Your task to perform on an android device: Empty the shopping cart on amazon. Search for panasonic triple a on amazon, select the first entry, add it to the cart, then select checkout. Image 0: 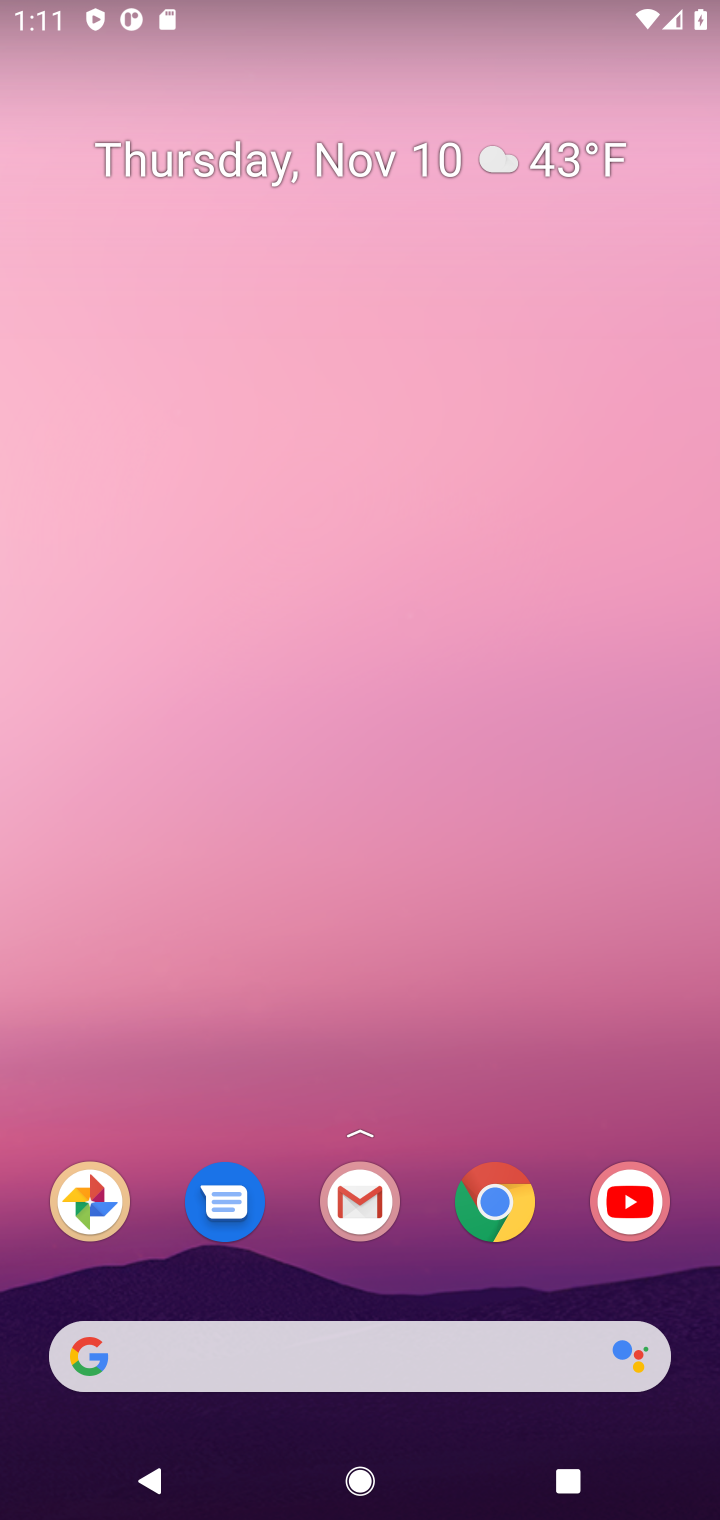
Step 0: click (502, 1208)
Your task to perform on an android device: Empty the shopping cart on amazon. Search for panasonic triple a on amazon, select the first entry, add it to the cart, then select checkout. Image 1: 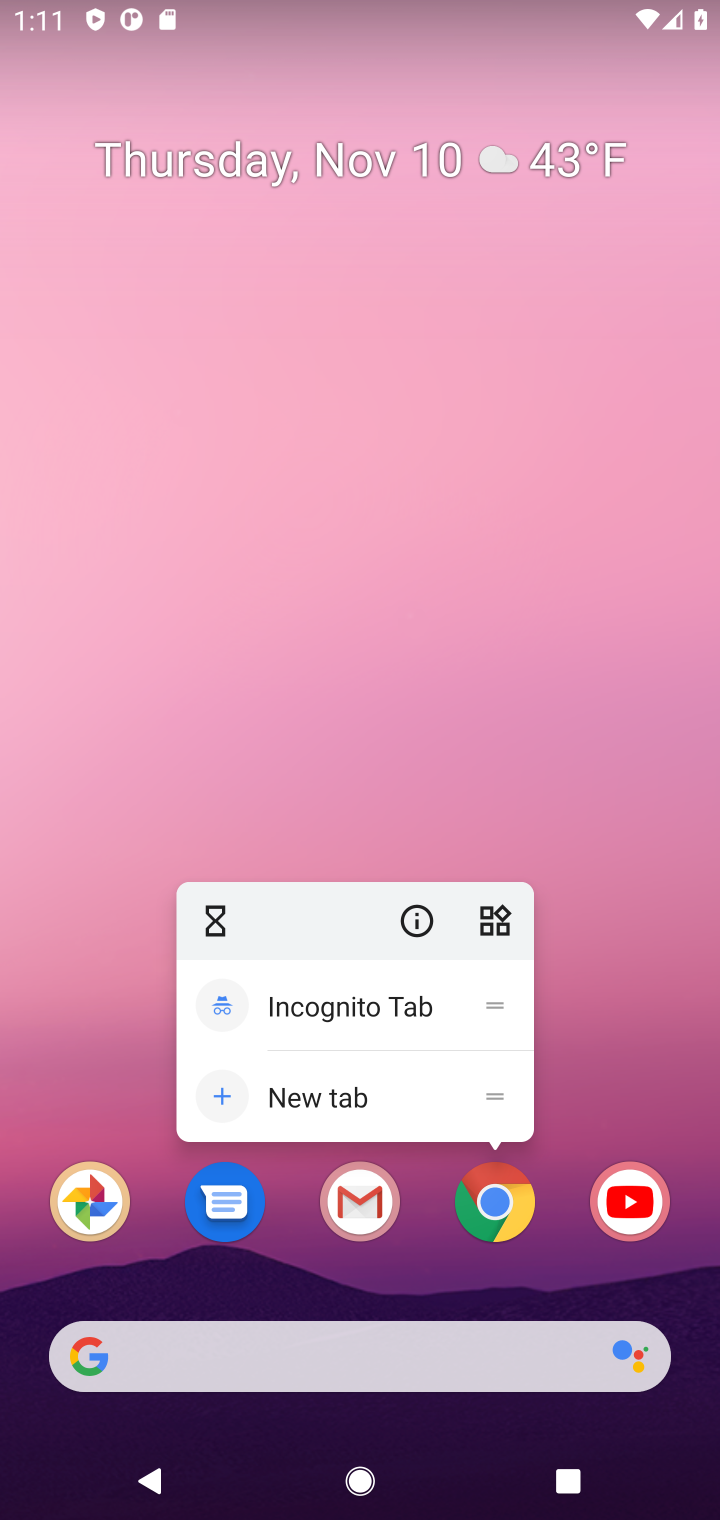
Step 1: click (502, 1208)
Your task to perform on an android device: Empty the shopping cart on amazon. Search for panasonic triple a on amazon, select the first entry, add it to the cart, then select checkout. Image 2: 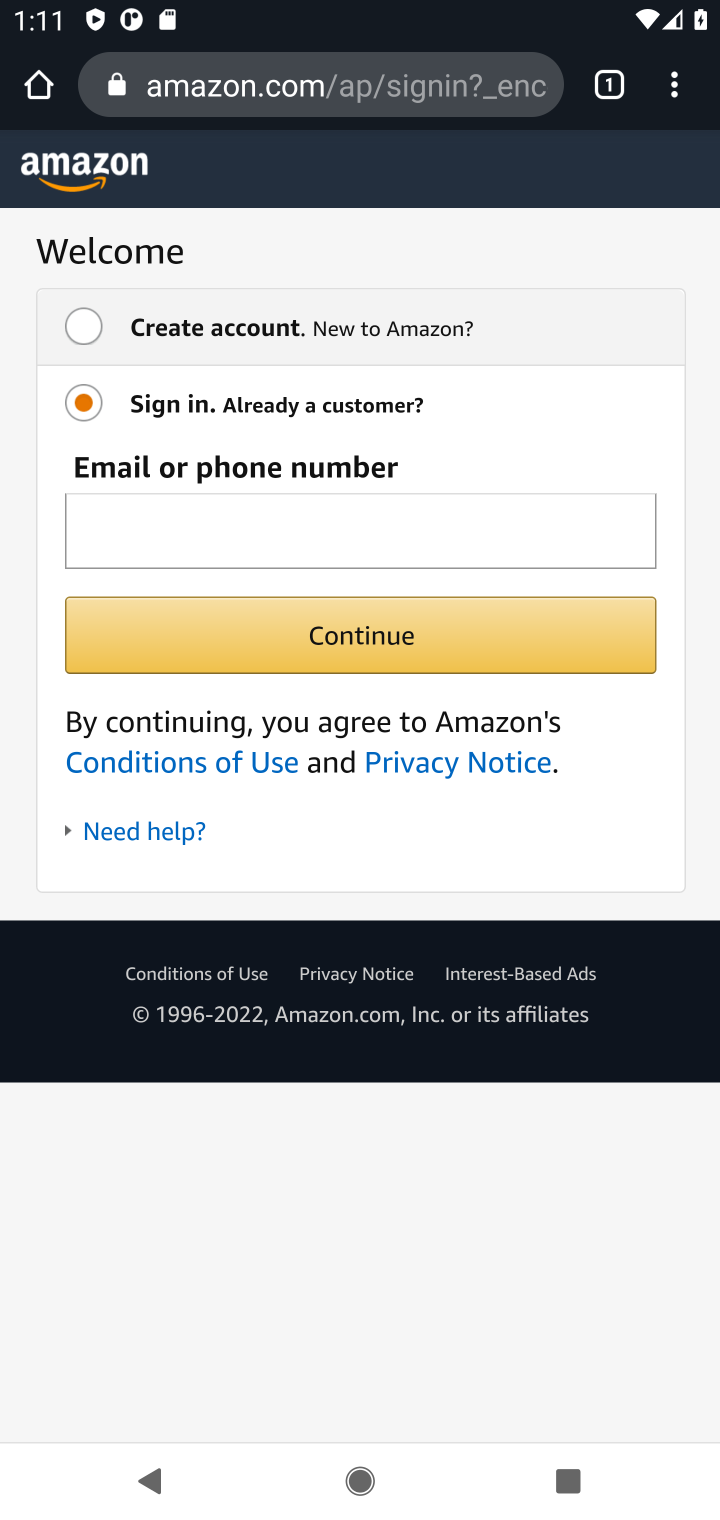
Step 2: click (385, 91)
Your task to perform on an android device: Empty the shopping cart on amazon. Search for panasonic triple a on amazon, select the first entry, add it to the cart, then select checkout. Image 3: 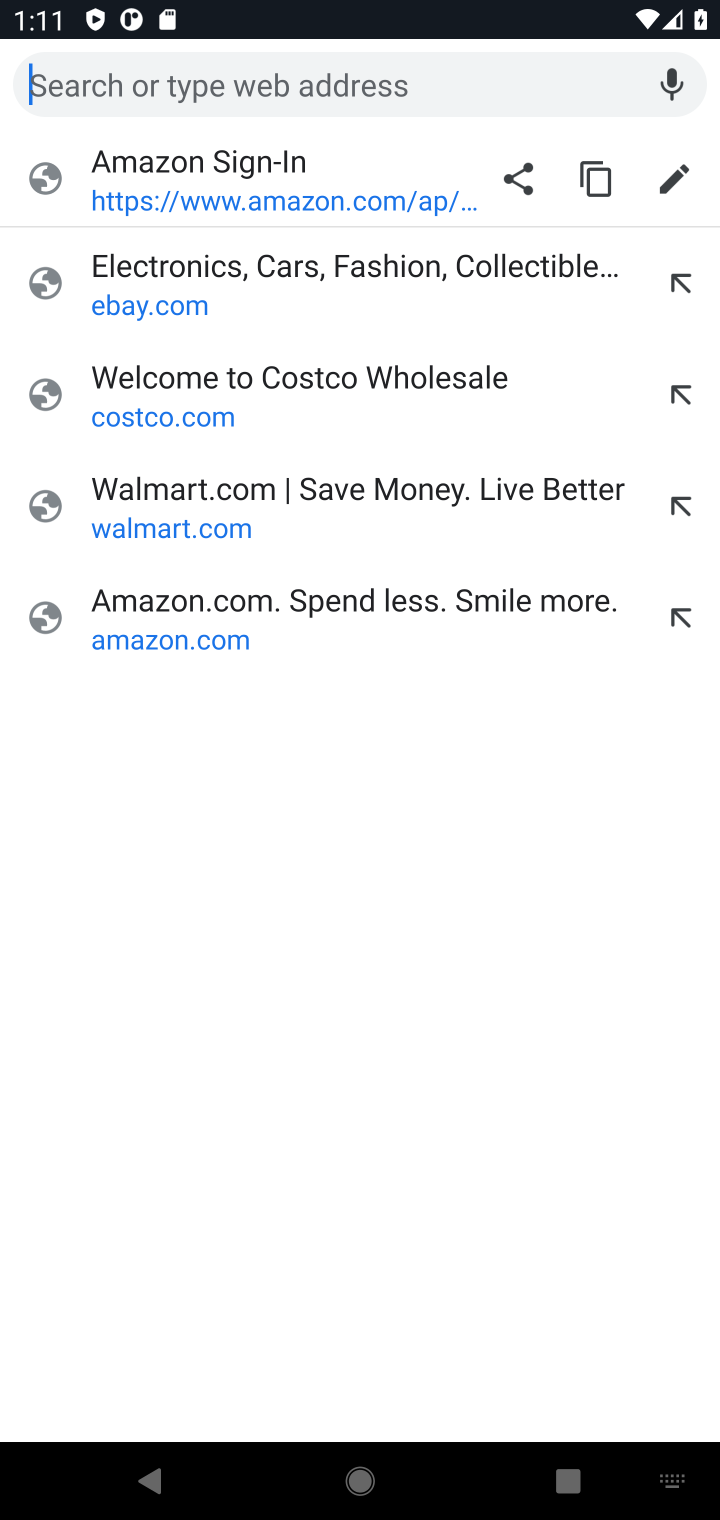
Step 3: click (281, 202)
Your task to perform on an android device: Empty the shopping cart on amazon. Search for panasonic triple a on amazon, select the first entry, add it to the cart, then select checkout. Image 4: 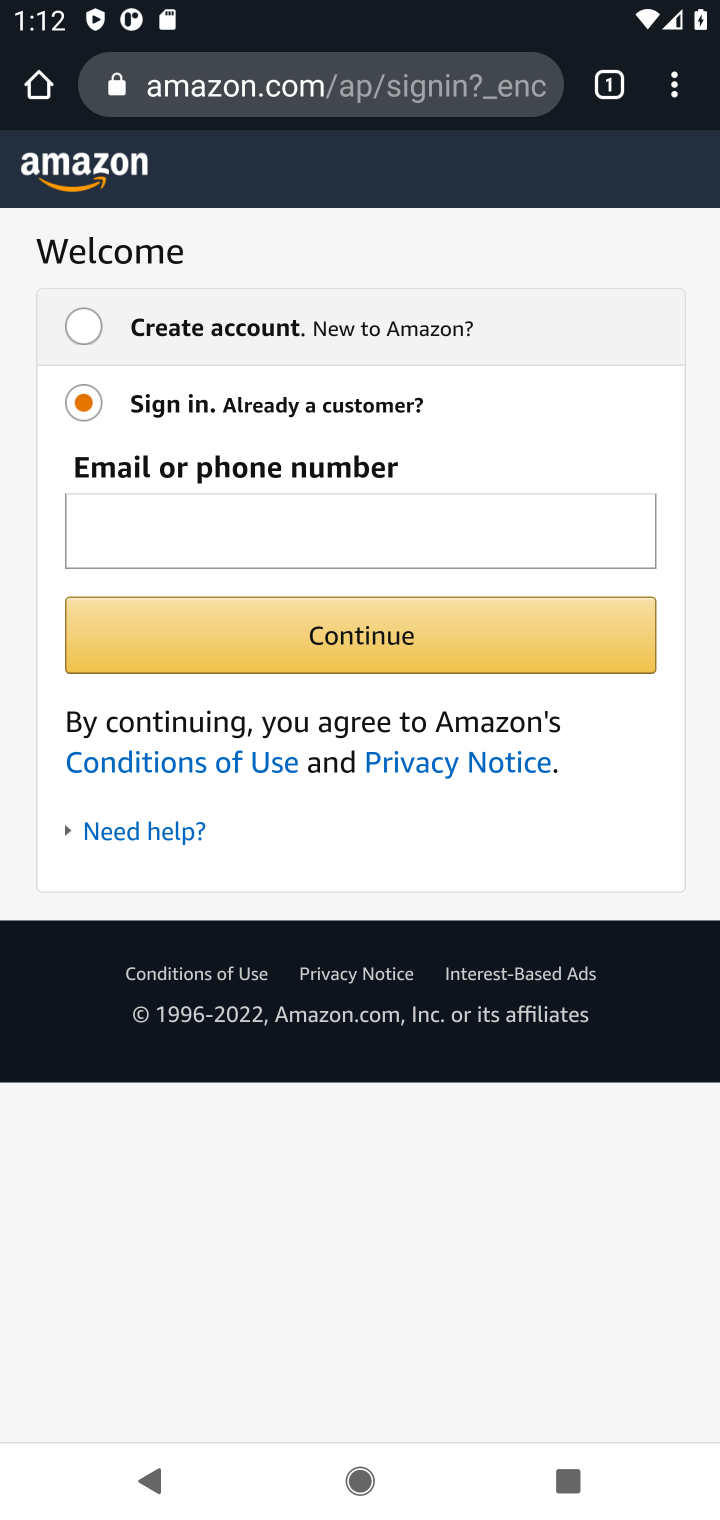
Step 4: press back button
Your task to perform on an android device: Empty the shopping cart on amazon. Search for panasonic triple a on amazon, select the first entry, add it to the cart, then select checkout. Image 5: 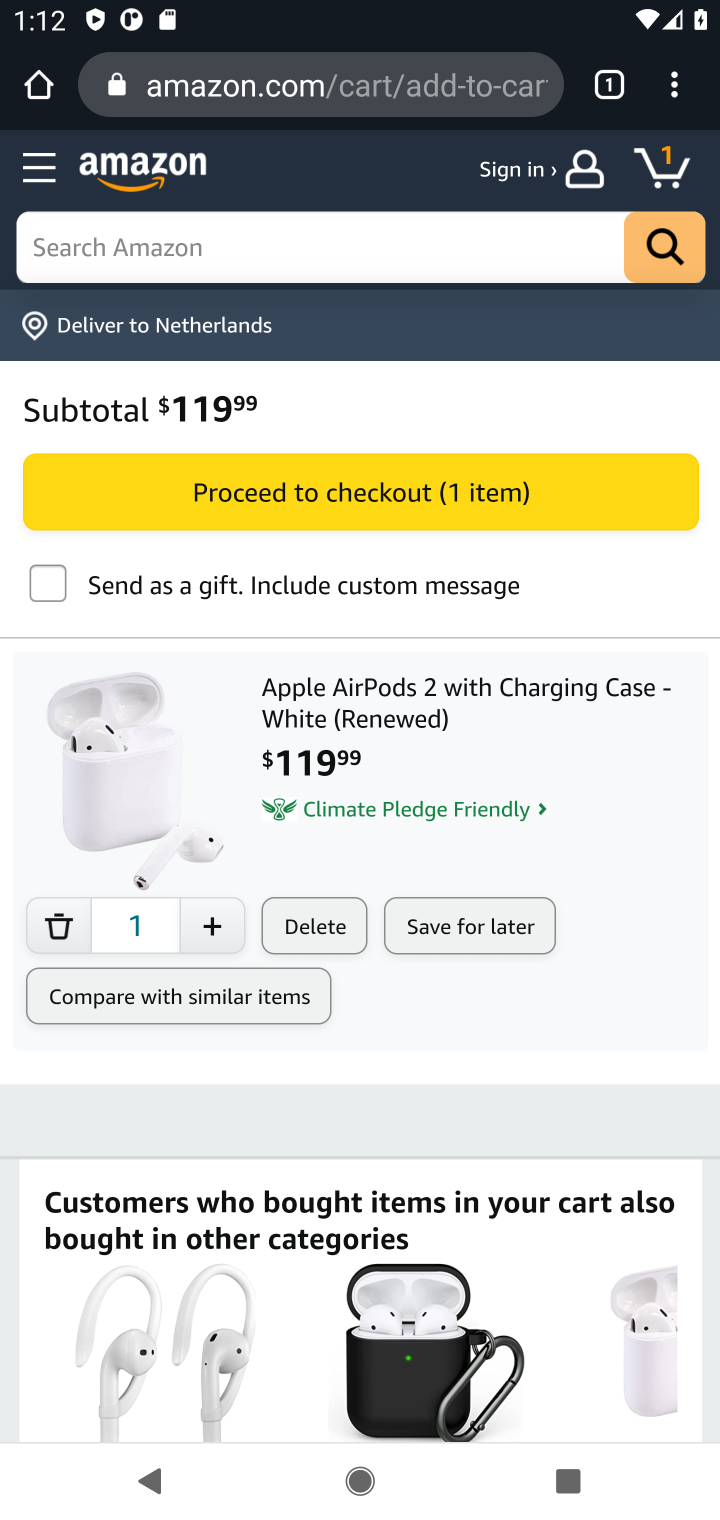
Step 5: click (305, 916)
Your task to perform on an android device: Empty the shopping cart on amazon. Search for panasonic triple a on amazon, select the first entry, add it to the cart, then select checkout. Image 6: 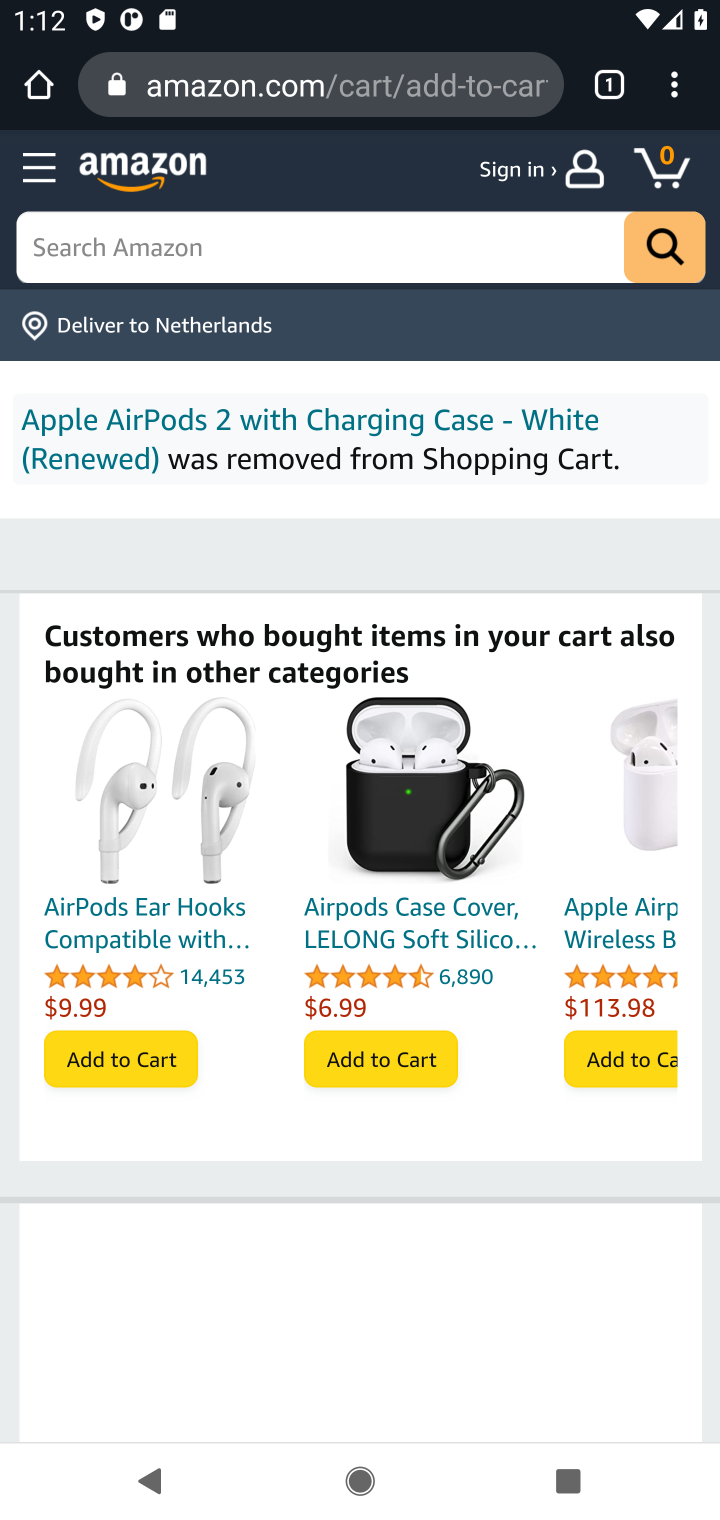
Step 6: click (425, 237)
Your task to perform on an android device: Empty the shopping cart on amazon. Search for panasonic triple a on amazon, select the first entry, add it to the cart, then select checkout. Image 7: 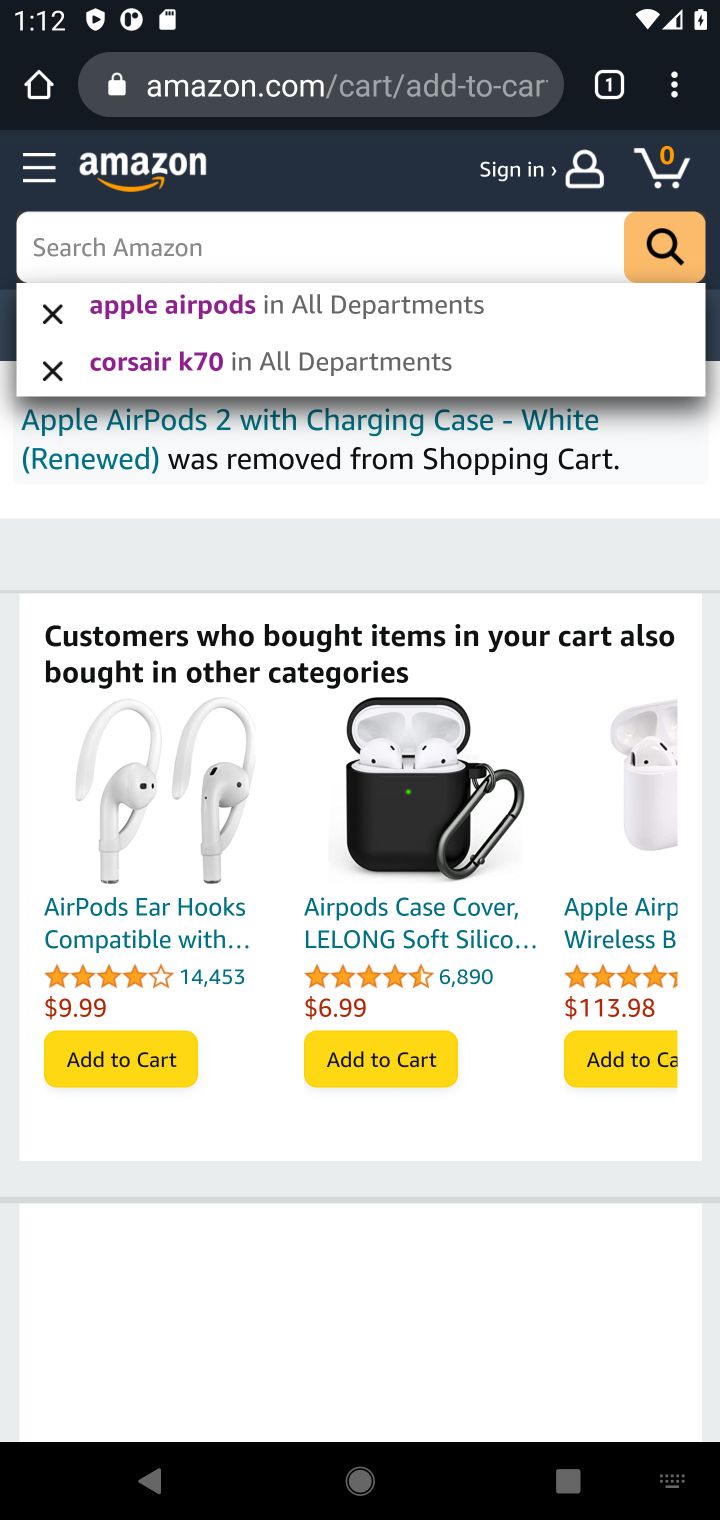
Step 7: type "panasonic triple a"
Your task to perform on an android device: Empty the shopping cart on amazon. Search for panasonic triple a on amazon, select the first entry, add it to the cart, then select checkout. Image 8: 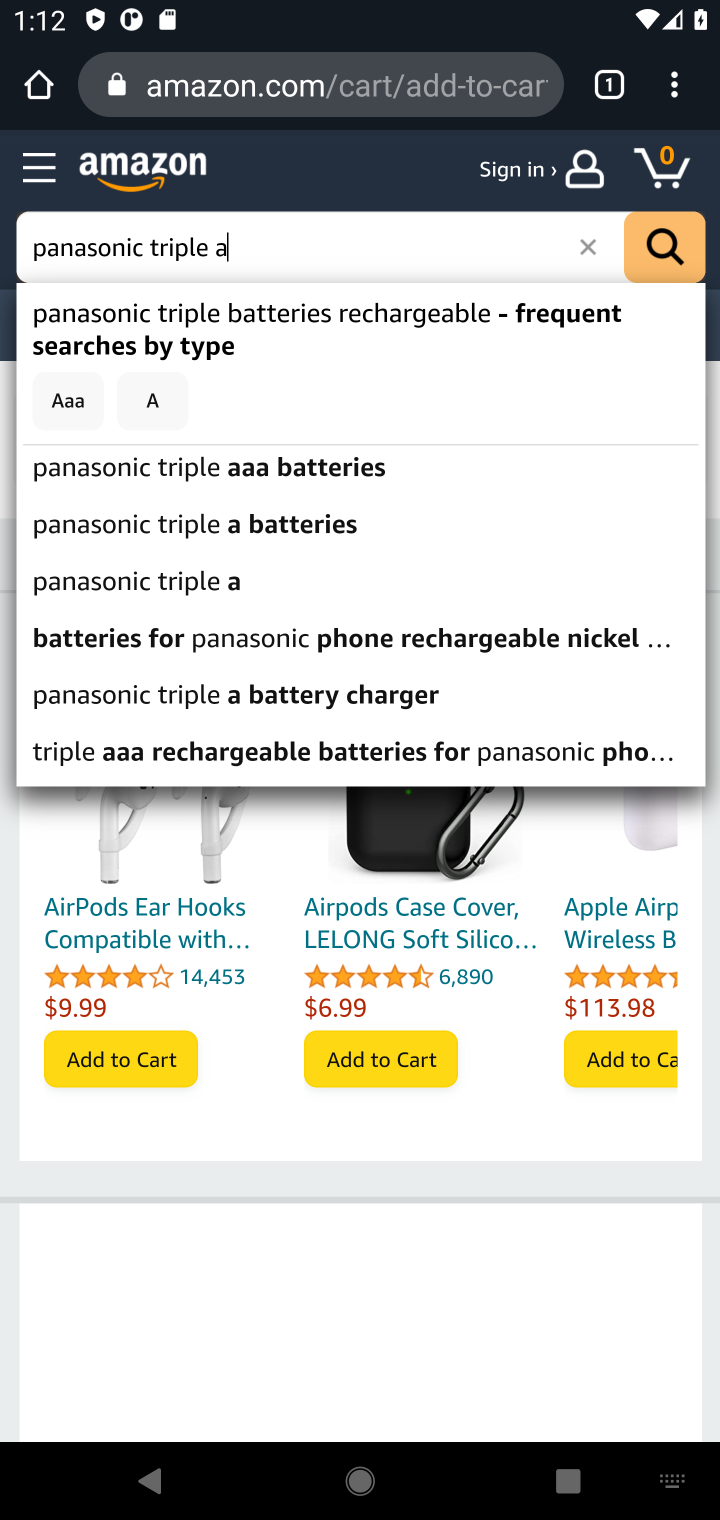
Step 8: press enter
Your task to perform on an android device: Empty the shopping cart on amazon. Search for panasonic triple a on amazon, select the first entry, add it to the cart, then select checkout. Image 9: 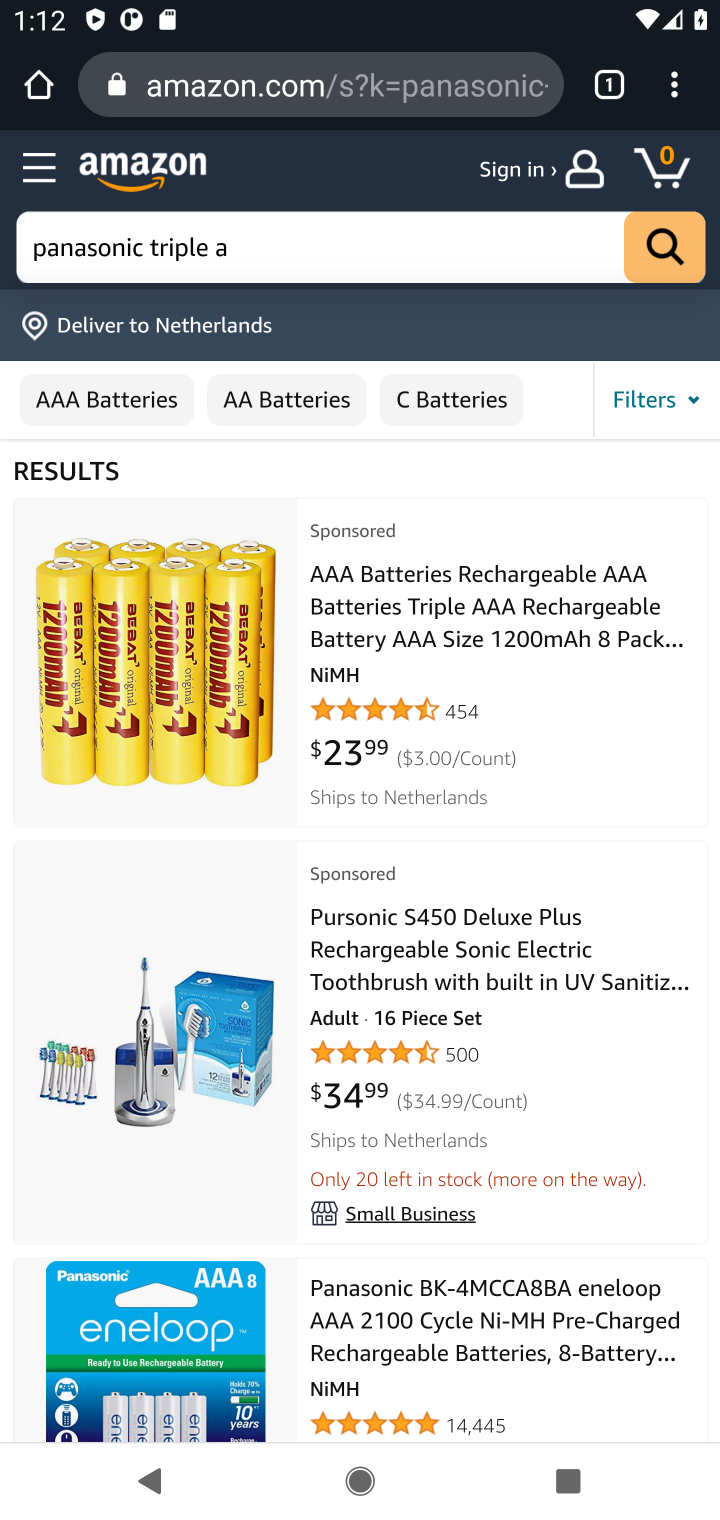
Step 9: drag from (565, 1249) to (579, 863)
Your task to perform on an android device: Empty the shopping cart on amazon. Search for panasonic triple a on amazon, select the first entry, add it to the cart, then select checkout. Image 10: 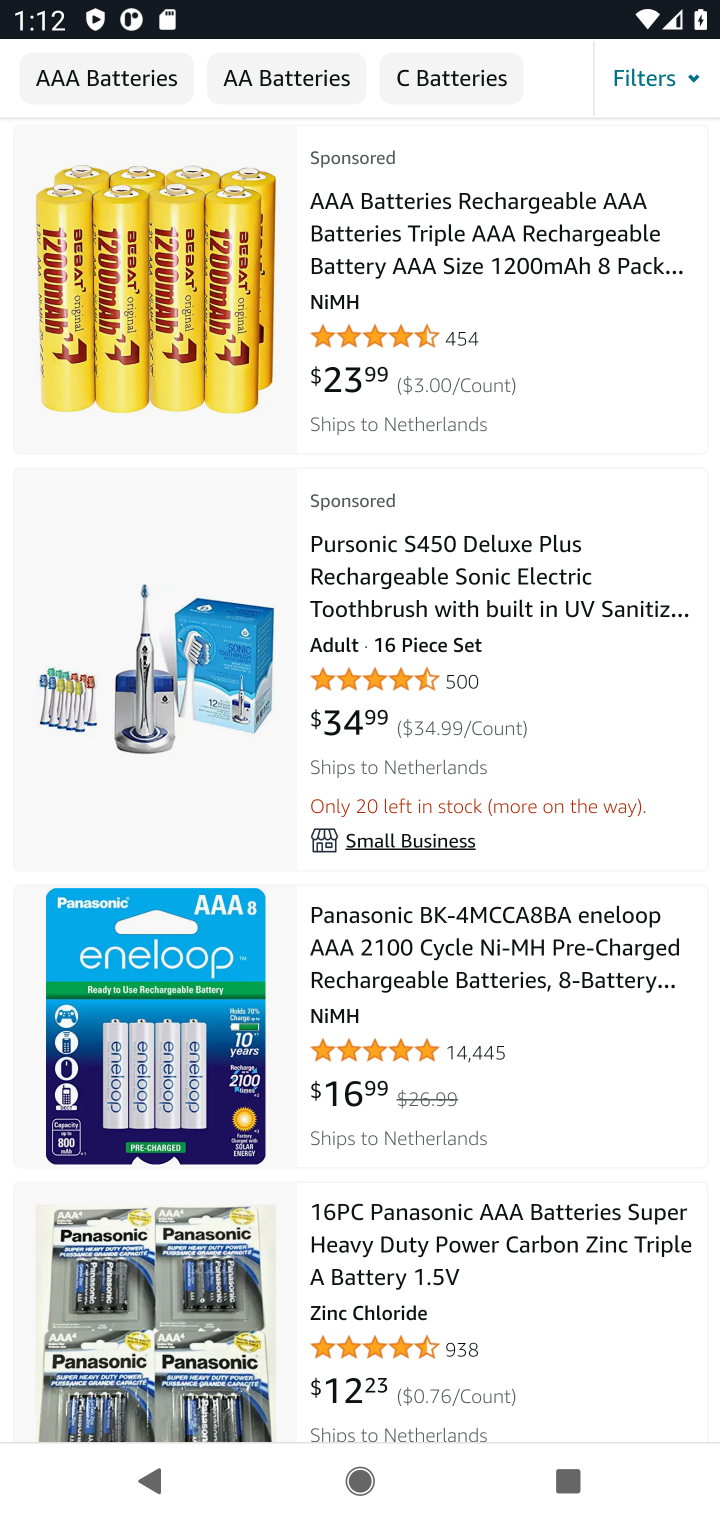
Step 10: click (136, 1284)
Your task to perform on an android device: Empty the shopping cart on amazon. Search for panasonic triple a on amazon, select the first entry, add it to the cart, then select checkout. Image 11: 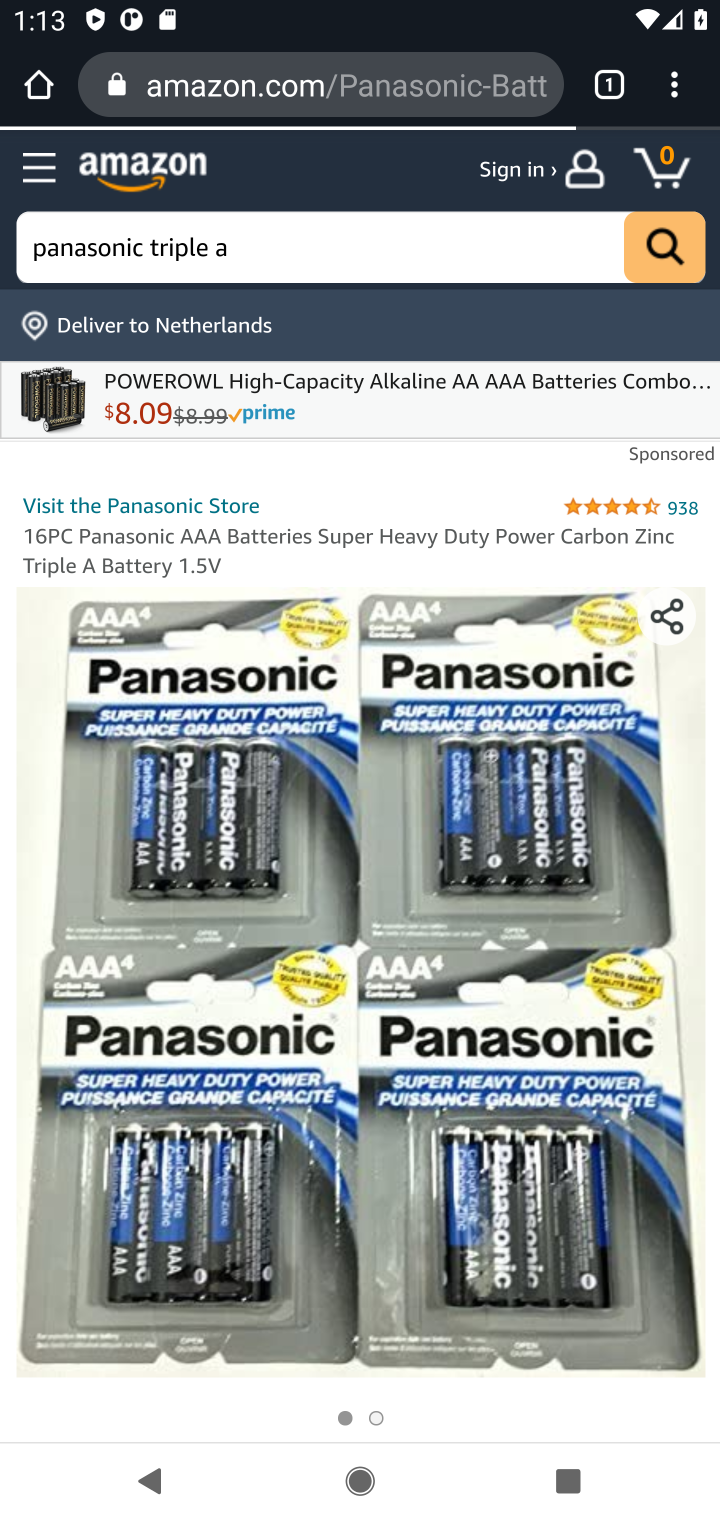
Step 11: drag from (434, 378) to (459, 314)
Your task to perform on an android device: Empty the shopping cart on amazon. Search for panasonic triple a on amazon, select the first entry, add it to the cart, then select checkout. Image 12: 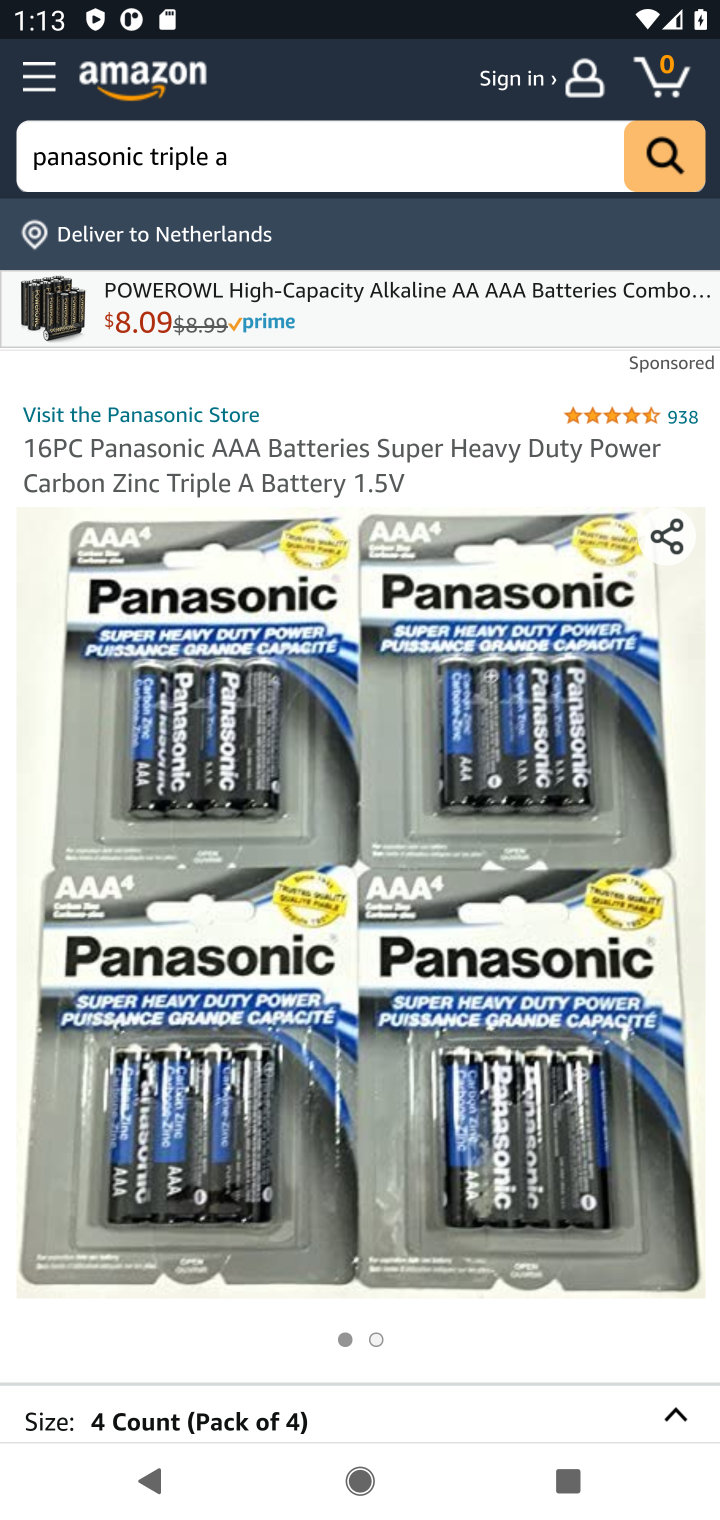
Step 12: click (560, 577)
Your task to perform on an android device: Empty the shopping cart on amazon. Search for panasonic triple a on amazon, select the first entry, add it to the cart, then select checkout. Image 13: 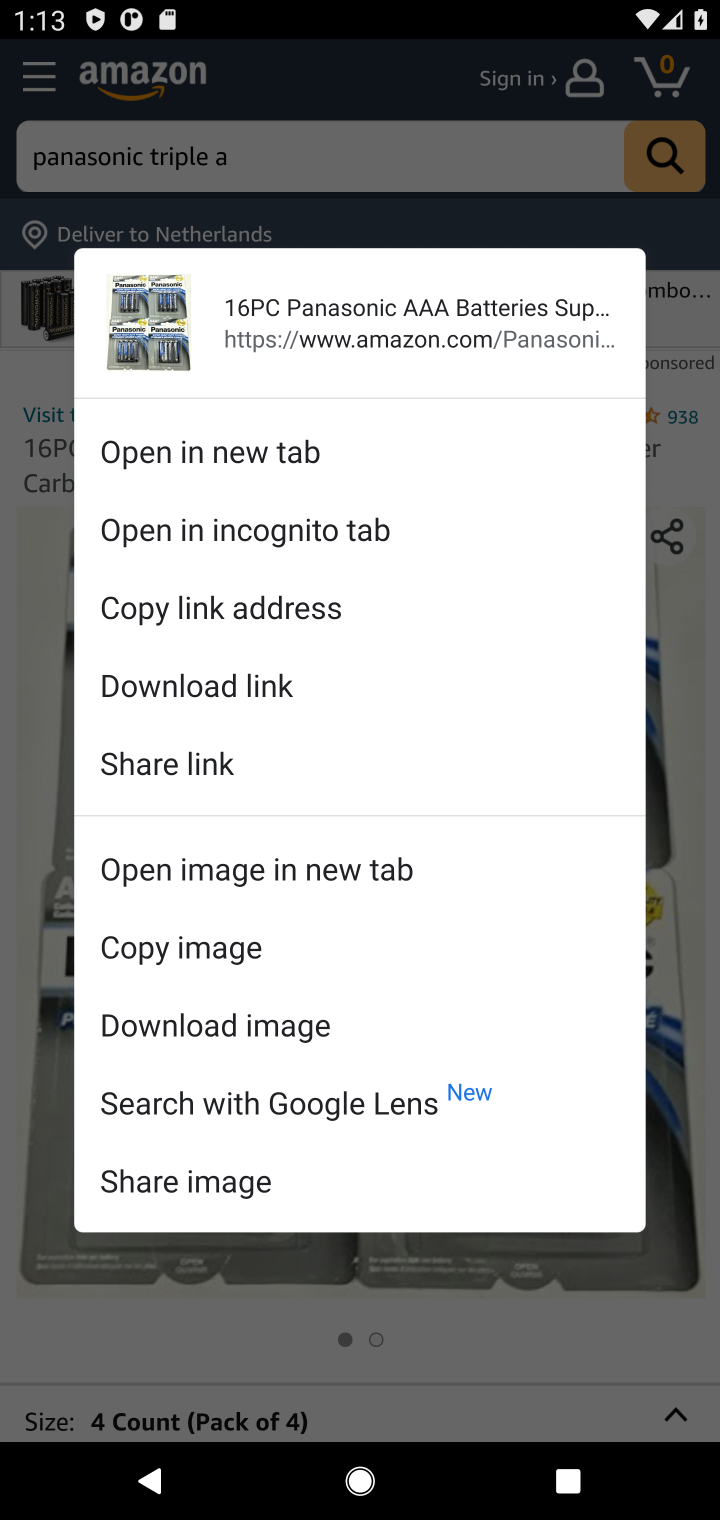
Step 13: click (527, 1281)
Your task to perform on an android device: Empty the shopping cart on amazon. Search for panasonic triple a on amazon, select the first entry, add it to the cart, then select checkout. Image 14: 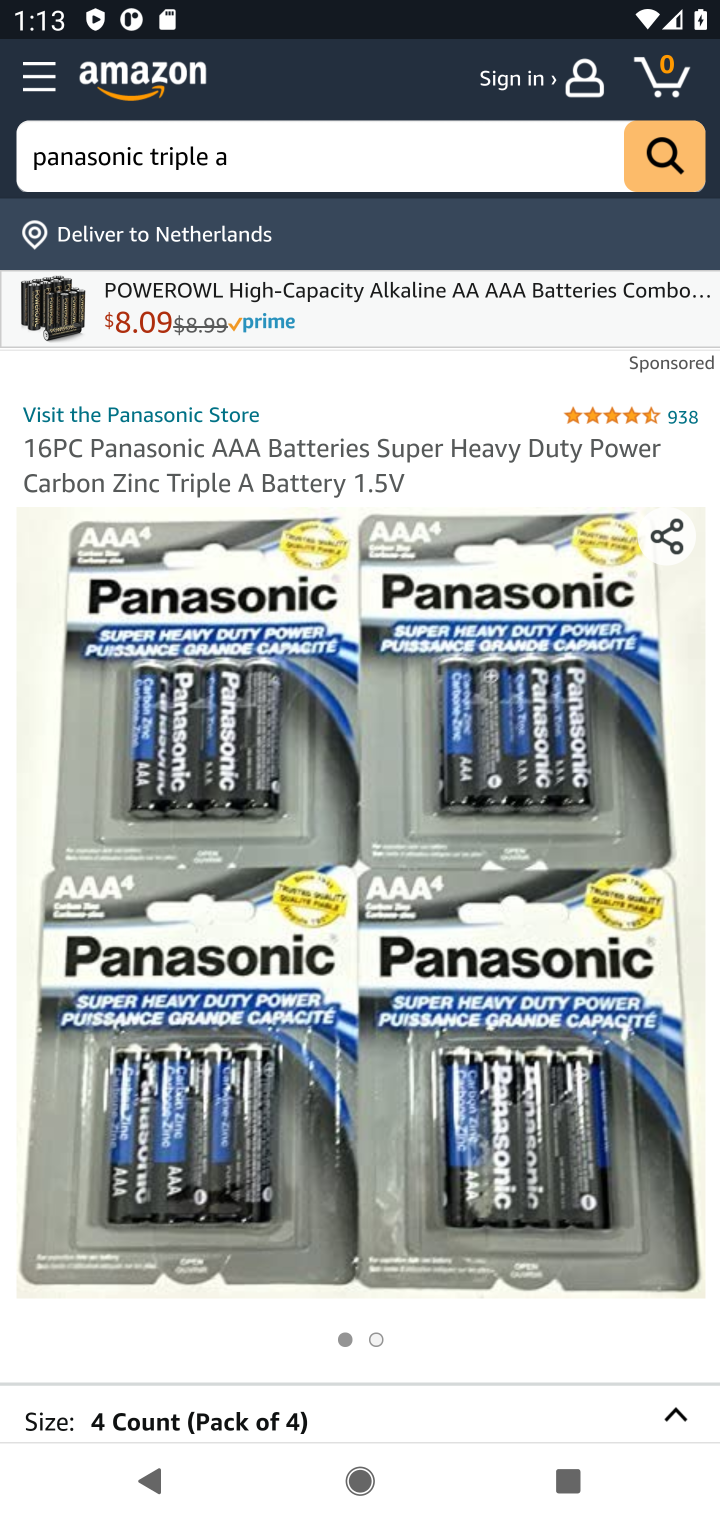
Step 14: drag from (381, 1006) to (496, 513)
Your task to perform on an android device: Empty the shopping cart on amazon. Search for panasonic triple a on amazon, select the first entry, add it to the cart, then select checkout. Image 15: 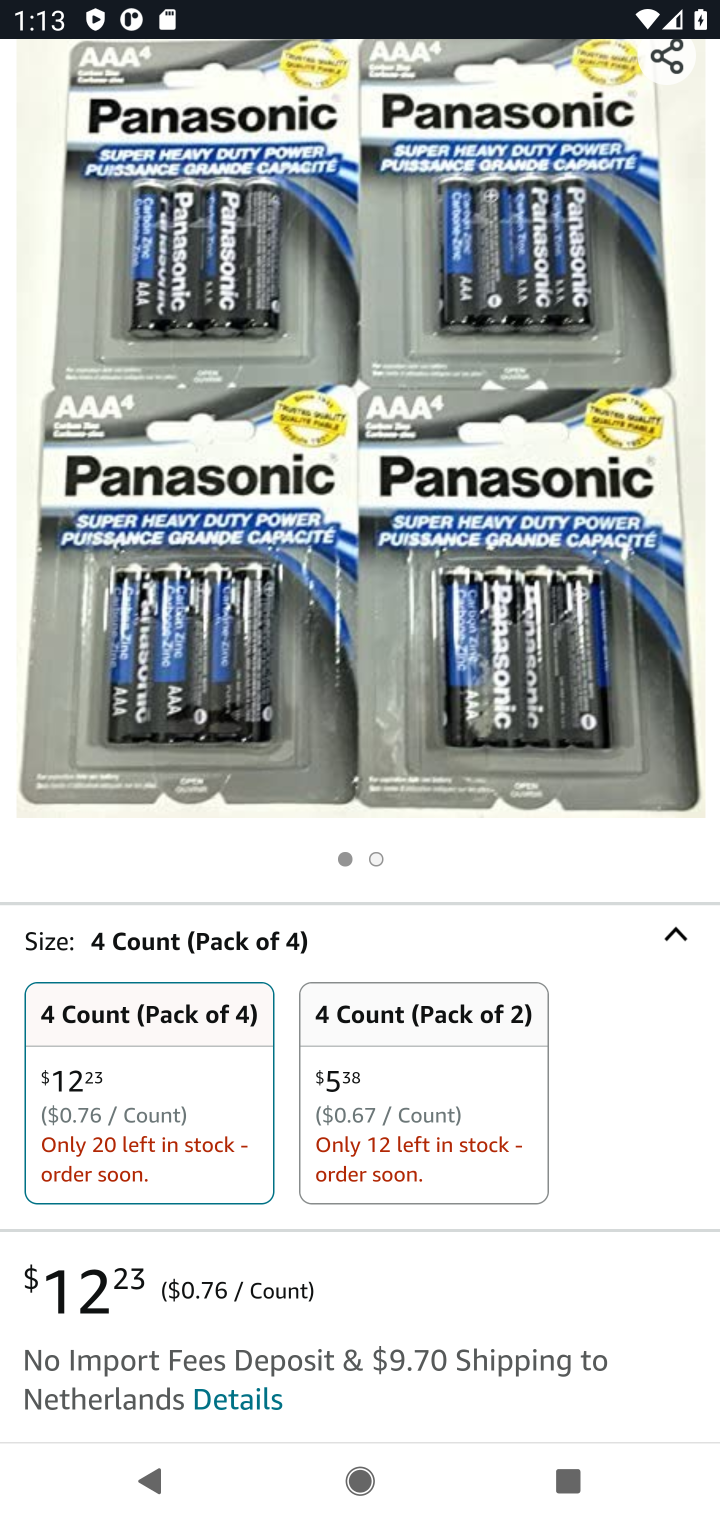
Step 15: drag from (537, 1162) to (497, 729)
Your task to perform on an android device: Empty the shopping cart on amazon. Search for panasonic triple a on amazon, select the first entry, add it to the cart, then select checkout. Image 16: 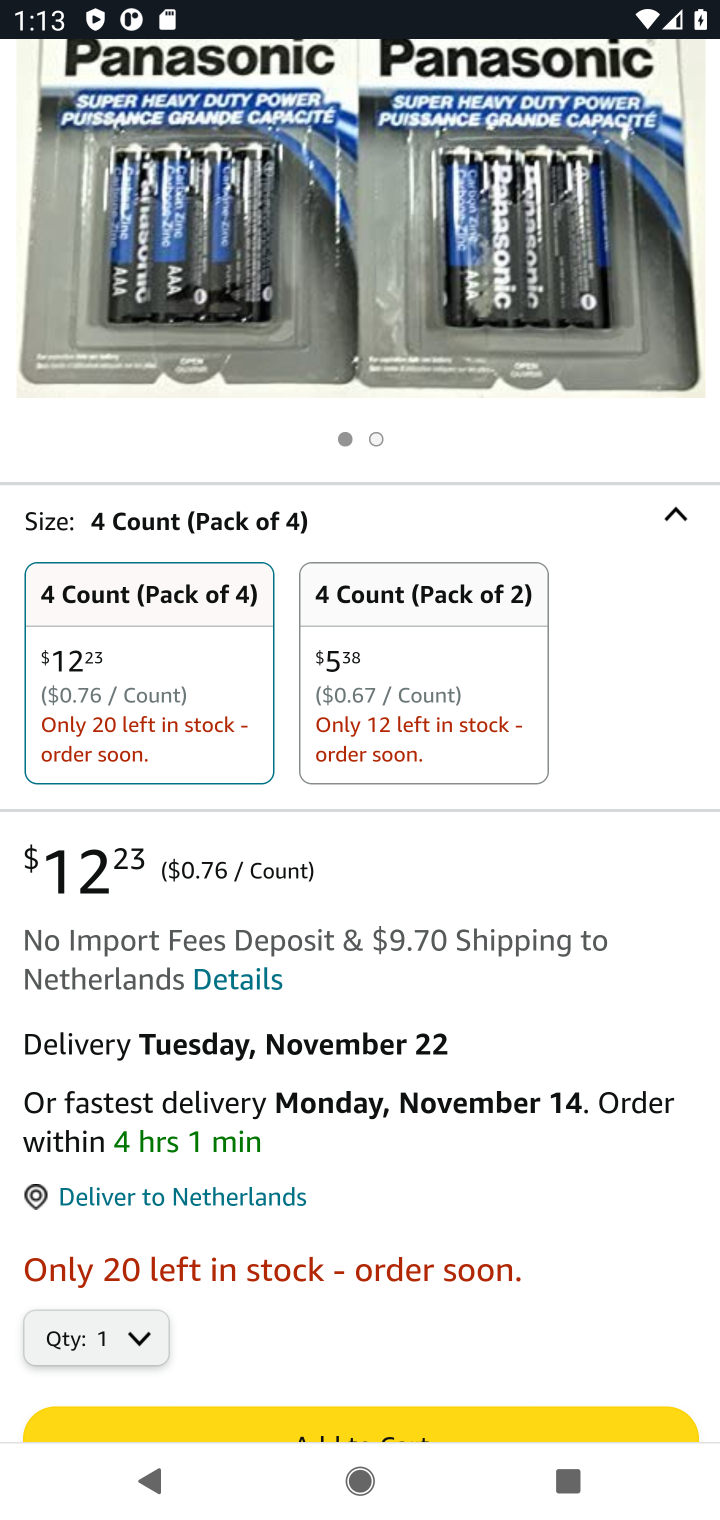
Step 16: drag from (618, 826) to (615, 586)
Your task to perform on an android device: Empty the shopping cart on amazon. Search for panasonic triple a on amazon, select the first entry, add it to the cart, then select checkout. Image 17: 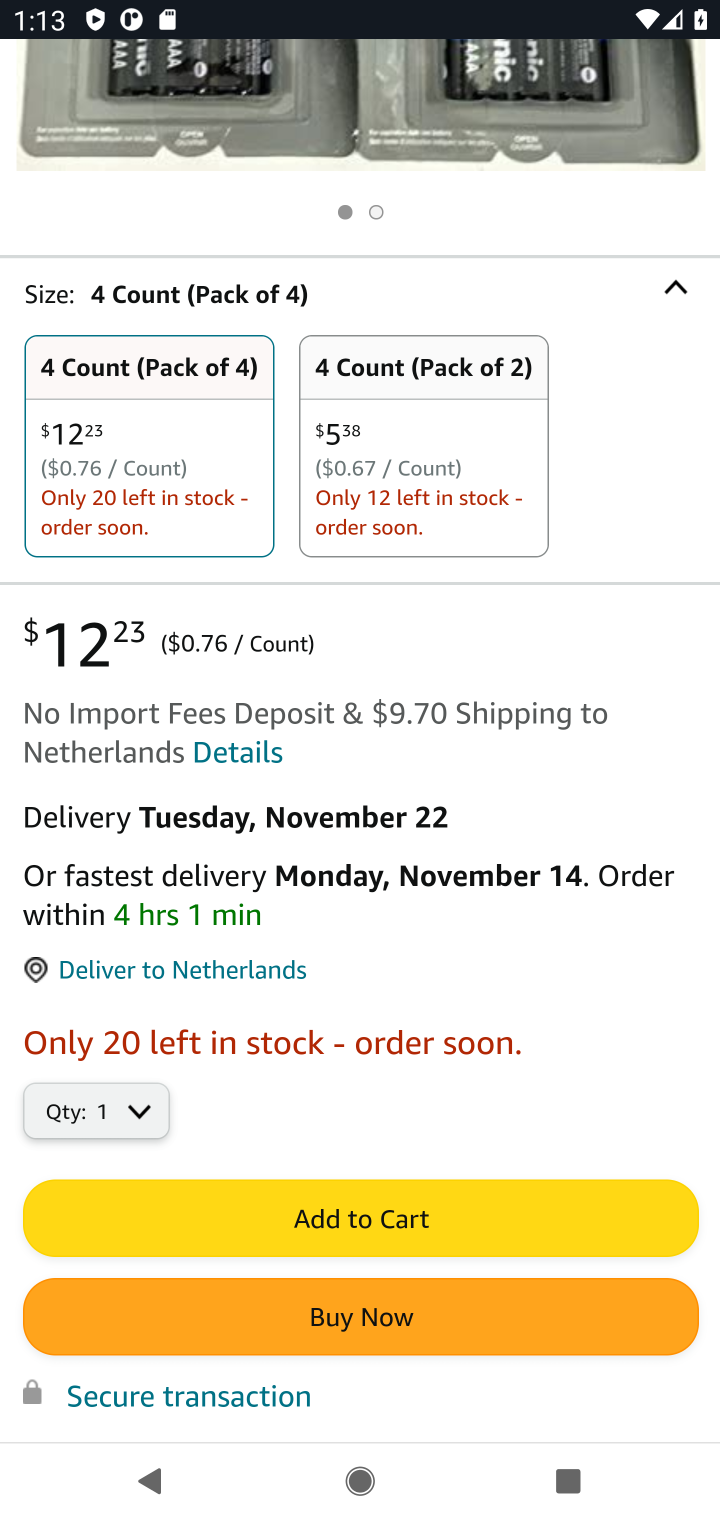
Step 17: click (408, 1212)
Your task to perform on an android device: Empty the shopping cart on amazon. Search for panasonic triple a on amazon, select the first entry, add it to the cart, then select checkout. Image 18: 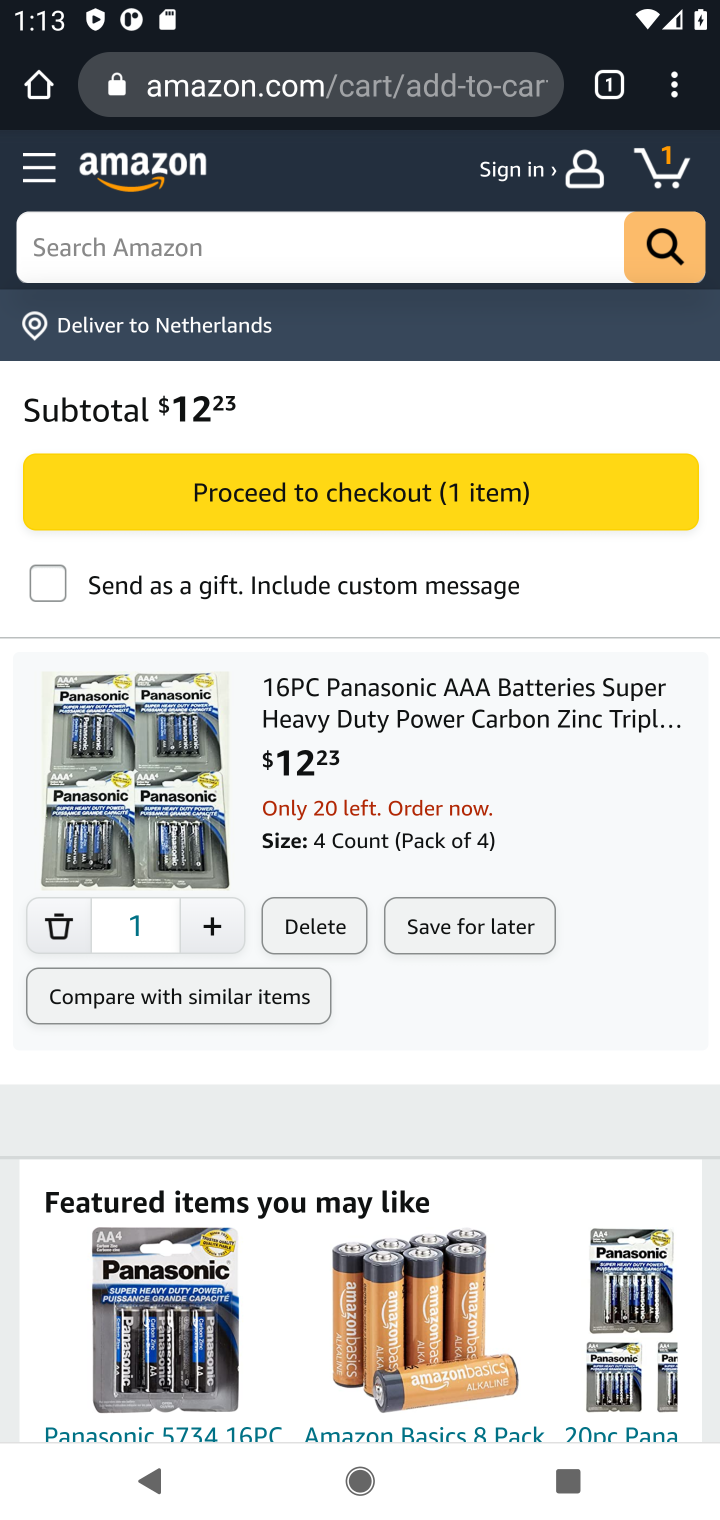
Step 18: click (388, 488)
Your task to perform on an android device: Empty the shopping cart on amazon. Search for panasonic triple a on amazon, select the first entry, add it to the cart, then select checkout. Image 19: 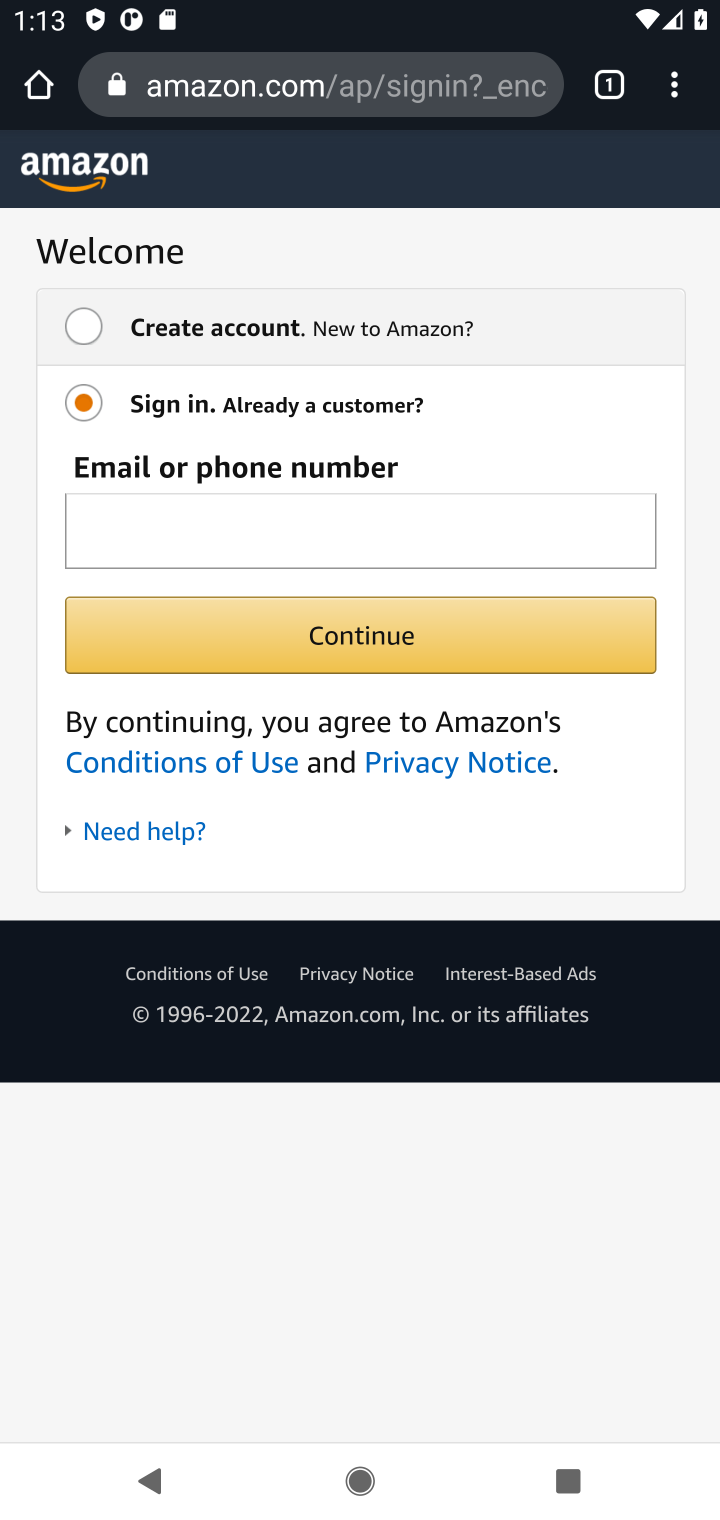
Step 19: task complete